Your task to perform on an android device: Is it going to rain today? Image 0: 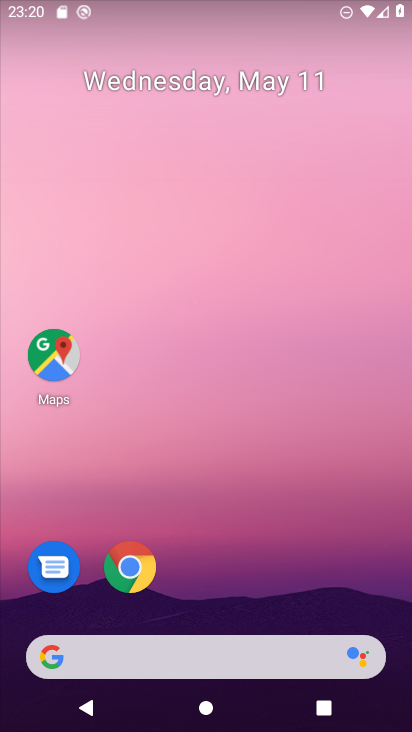
Step 0: type "Is it going to rain today?"
Your task to perform on an android device: Is it going to rain today? Image 1: 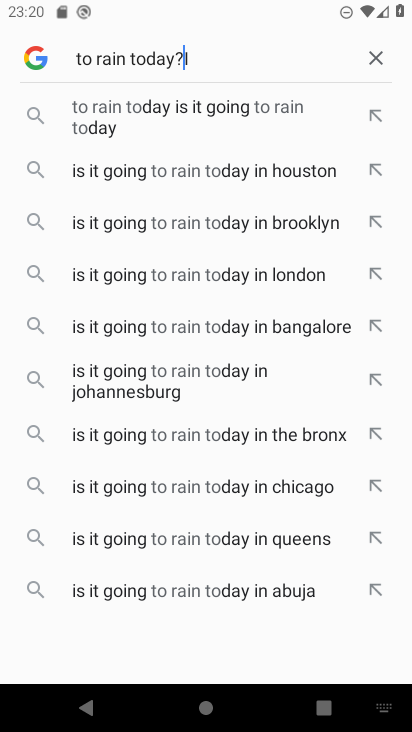
Step 1: click (260, 111)
Your task to perform on an android device: Is it going to rain today? Image 2: 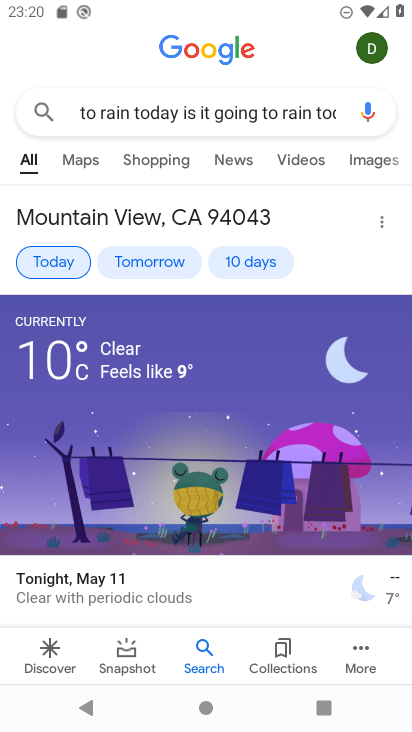
Step 2: task complete